Your task to perform on an android device: allow notifications from all sites in the chrome app Image 0: 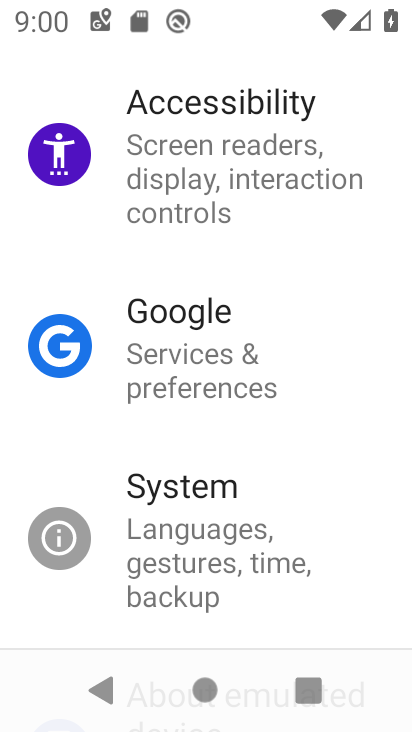
Step 0: press home button
Your task to perform on an android device: allow notifications from all sites in the chrome app Image 1: 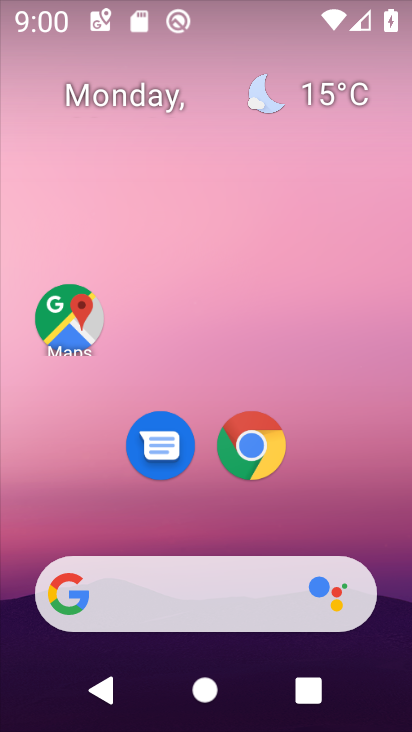
Step 1: click (252, 438)
Your task to perform on an android device: allow notifications from all sites in the chrome app Image 2: 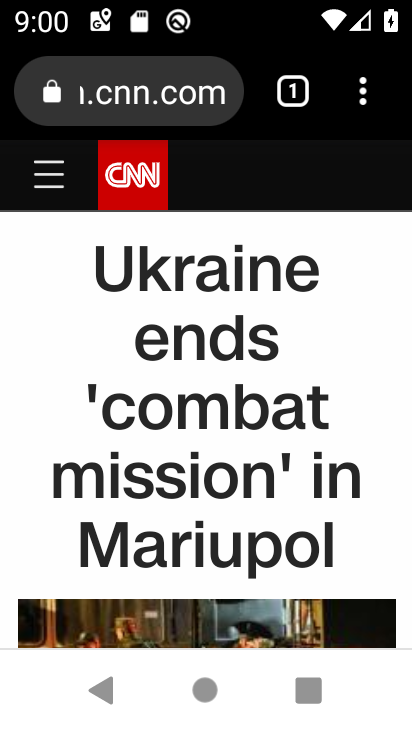
Step 2: click (357, 100)
Your task to perform on an android device: allow notifications from all sites in the chrome app Image 3: 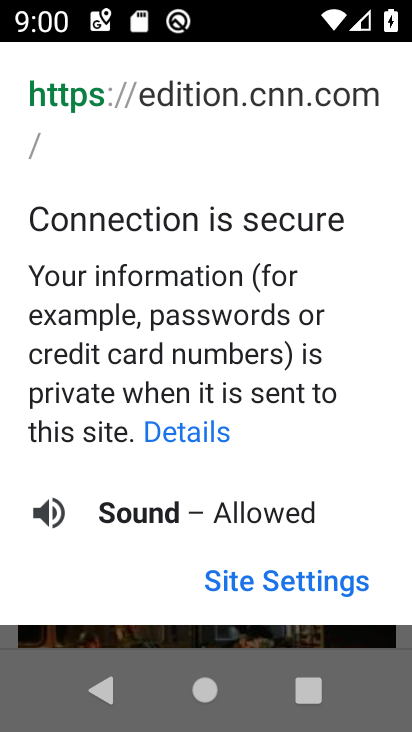
Step 3: click (227, 574)
Your task to perform on an android device: allow notifications from all sites in the chrome app Image 4: 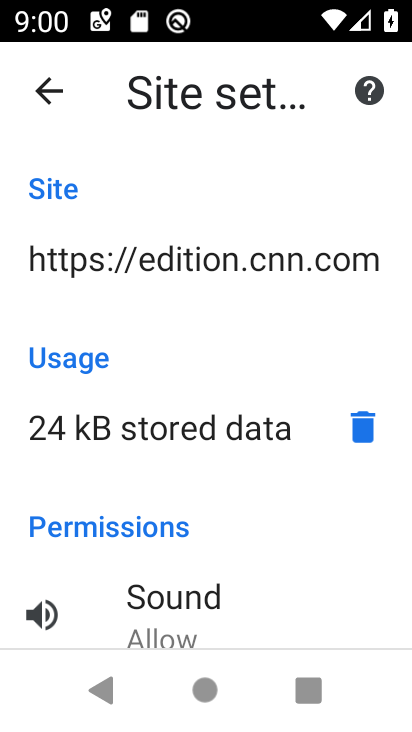
Step 4: click (45, 86)
Your task to perform on an android device: allow notifications from all sites in the chrome app Image 5: 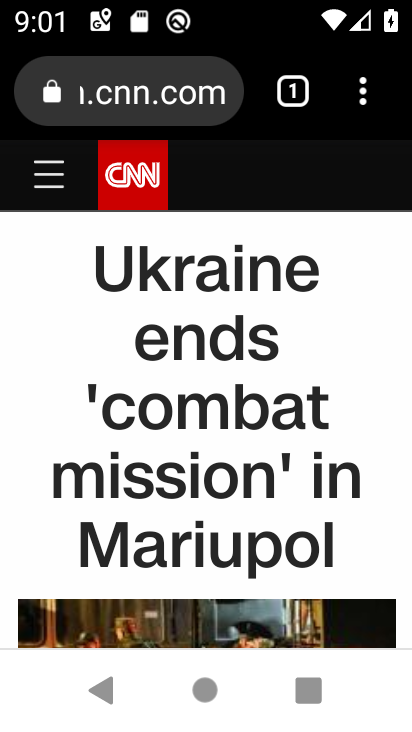
Step 5: click (361, 90)
Your task to perform on an android device: allow notifications from all sites in the chrome app Image 6: 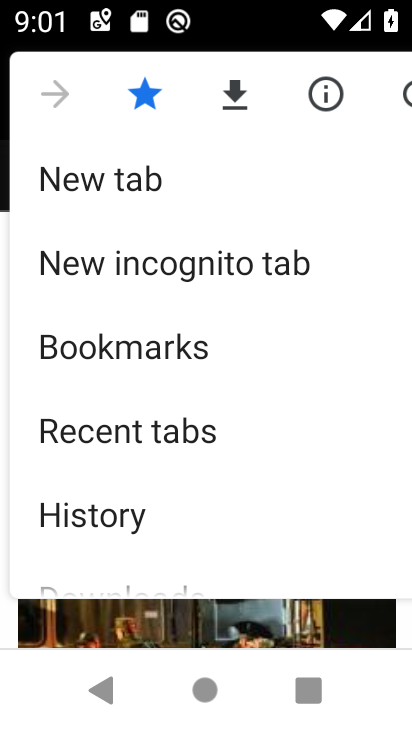
Step 6: drag from (125, 537) to (193, 102)
Your task to perform on an android device: allow notifications from all sites in the chrome app Image 7: 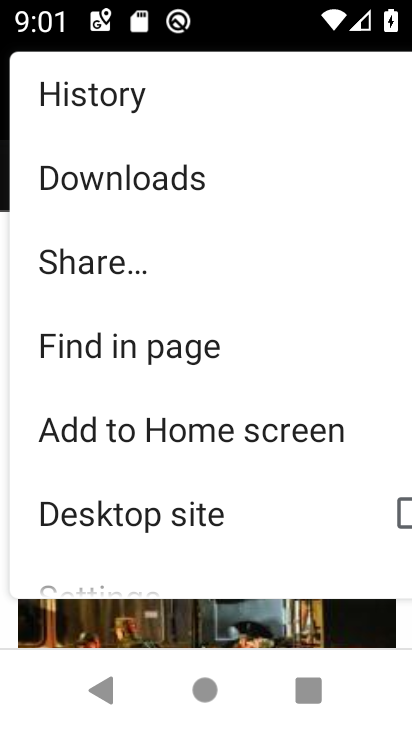
Step 7: drag from (189, 526) to (231, 141)
Your task to perform on an android device: allow notifications from all sites in the chrome app Image 8: 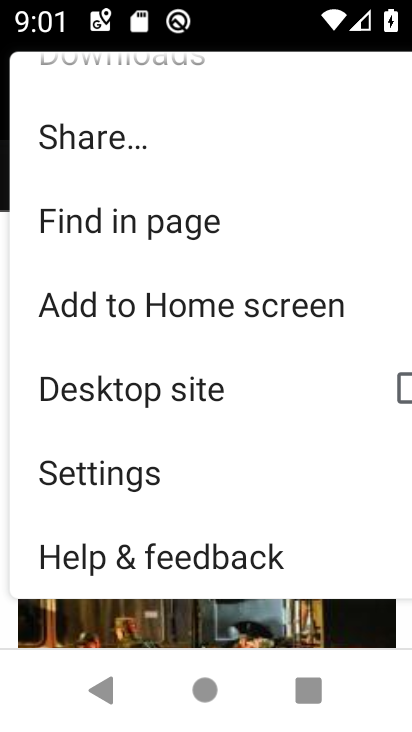
Step 8: click (179, 473)
Your task to perform on an android device: allow notifications from all sites in the chrome app Image 9: 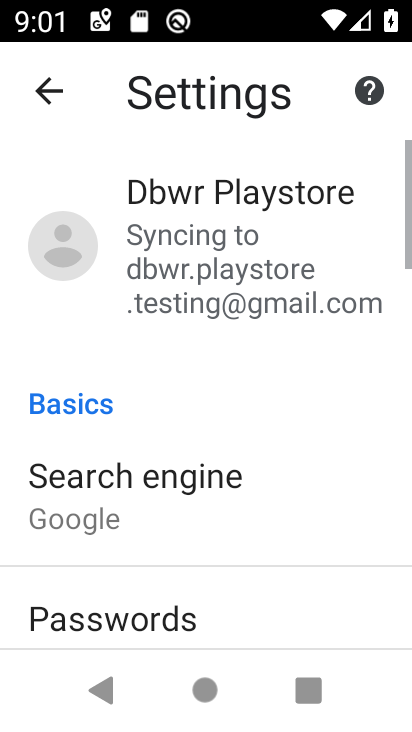
Step 9: drag from (213, 536) to (263, 144)
Your task to perform on an android device: allow notifications from all sites in the chrome app Image 10: 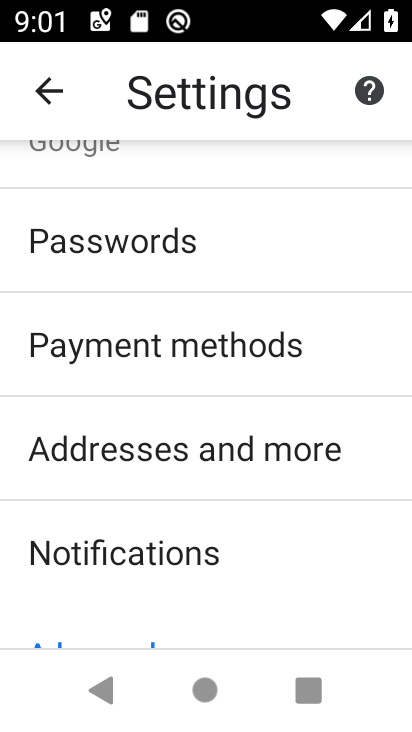
Step 10: drag from (199, 578) to (247, 143)
Your task to perform on an android device: allow notifications from all sites in the chrome app Image 11: 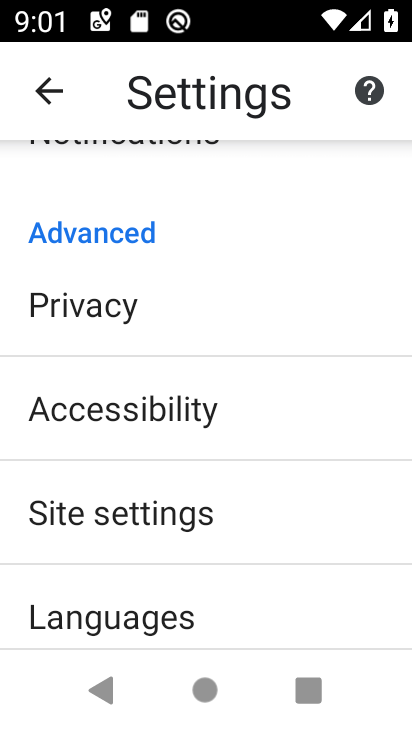
Step 11: click (214, 516)
Your task to perform on an android device: allow notifications from all sites in the chrome app Image 12: 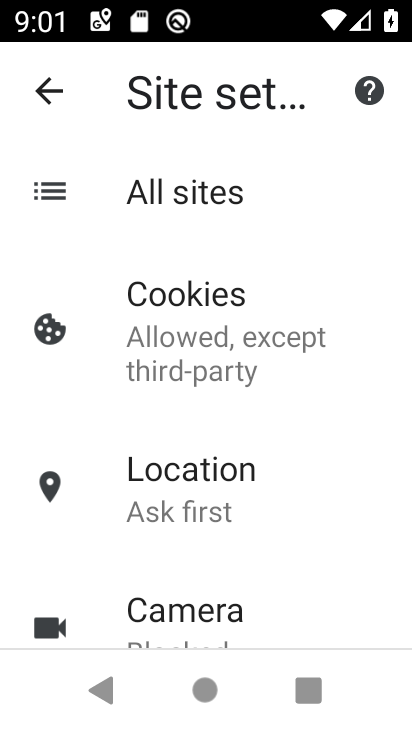
Step 12: click (261, 189)
Your task to perform on an android device: allow notifications from all sites in the chrome app Image 13: 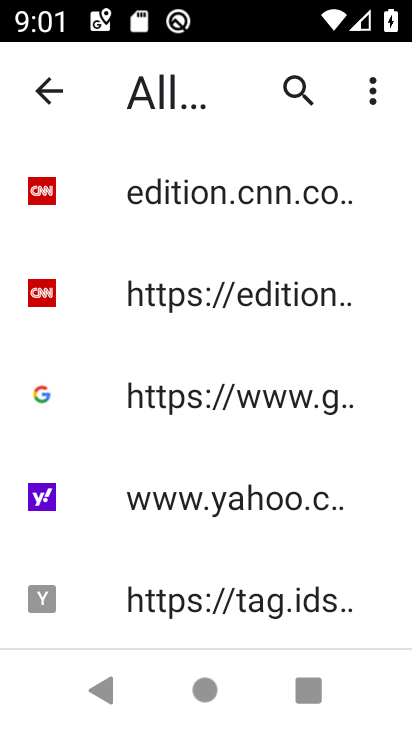
Step 13: task complete